Your task to perform on an android device: Do I have any events today? Image 0: 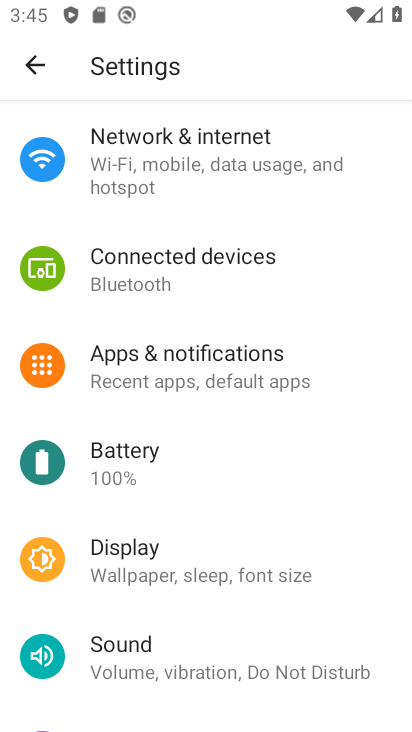
Step 0: press home button
Your task to perform on an android device: Do I have any events today? Image 1: 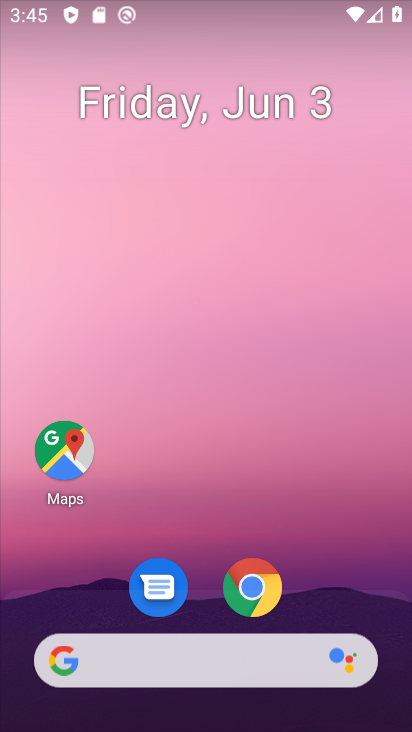
Step 1: drag from (305, 507) to (298, 151)
Your task to perform on an android device: Do I have any events today? Image 2: 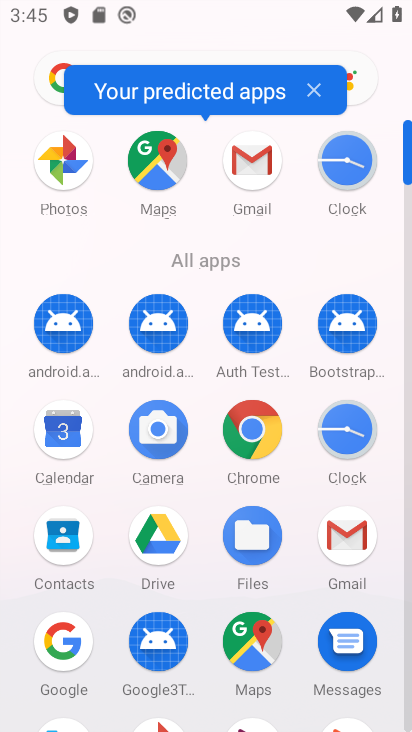
Step 2: click (68, 418)
Your task to perform on an android device: Do I have any events today? Image 3: 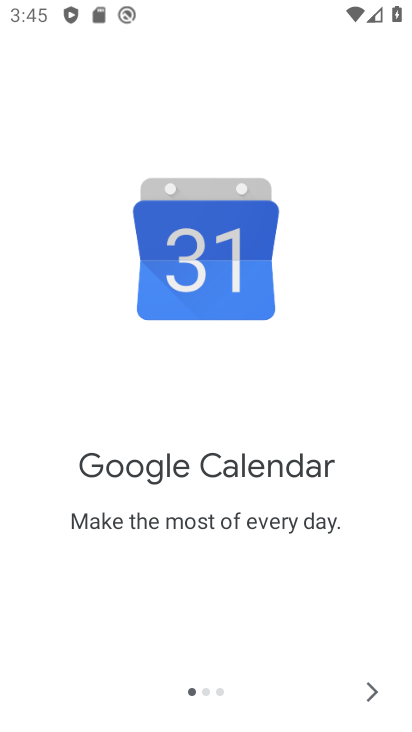
Step 3: click (367, 703)
Your task to perform on an android device: Do I have any events today? Image 4: 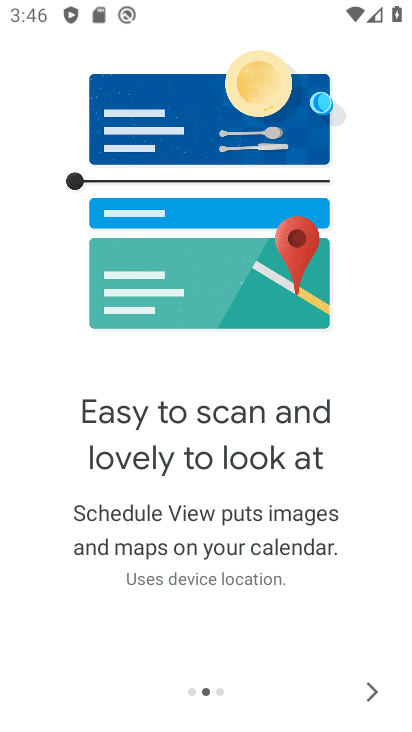
Step 4: click (366, 691)
Your task to perform on an android device: Do I have any events today? Image 5: 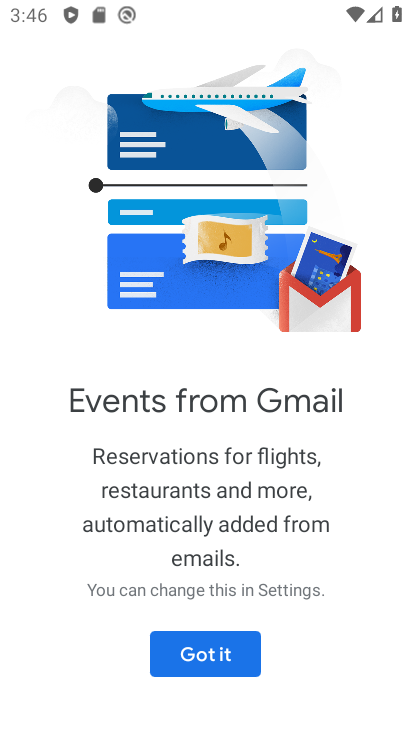
Step 5: click (196, 640)
Your task to perform on an android device: Do I have any events today? Image 6: 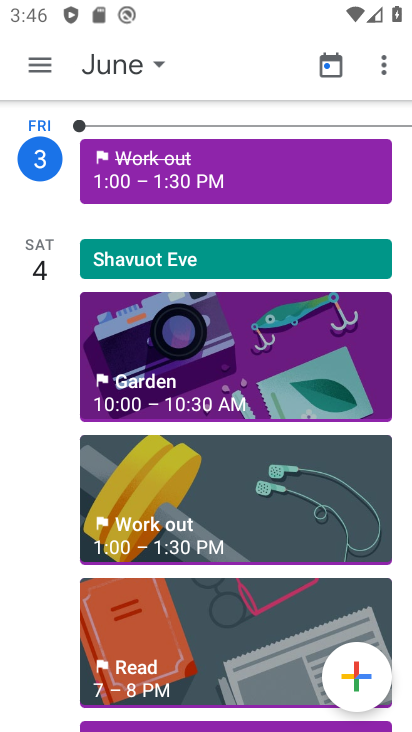
Step 6: click (35, 67)
Your task to perform on an android device: Do I have any events today? Image 7: 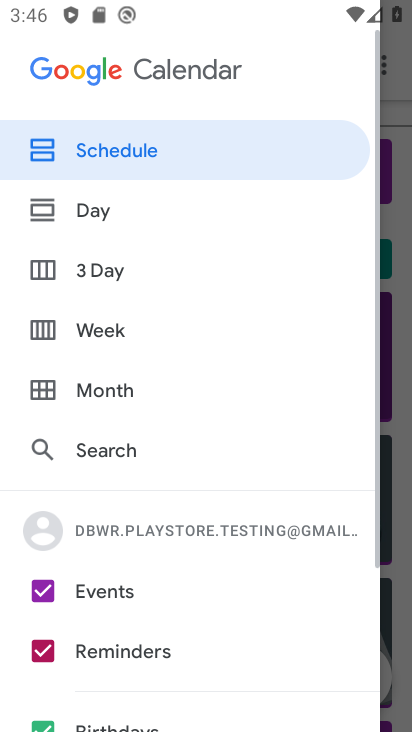
Step 7: click (73, 207)
Your task to perform on an android device: Do I have any events today? Image 8: 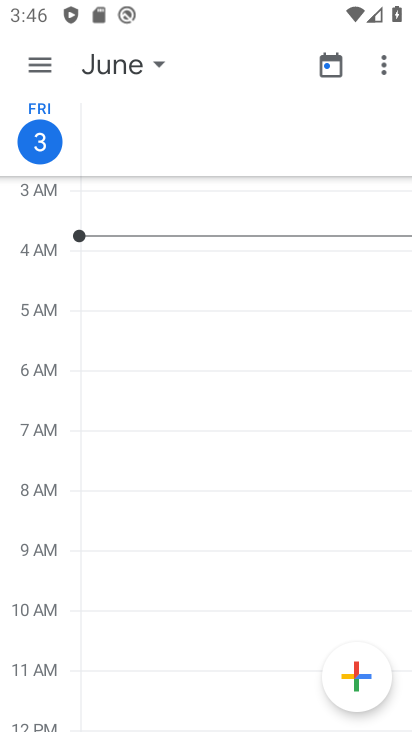
Step 8: task complete